Your task to perform on an android device: toggle translation in the chrome app Image 0: 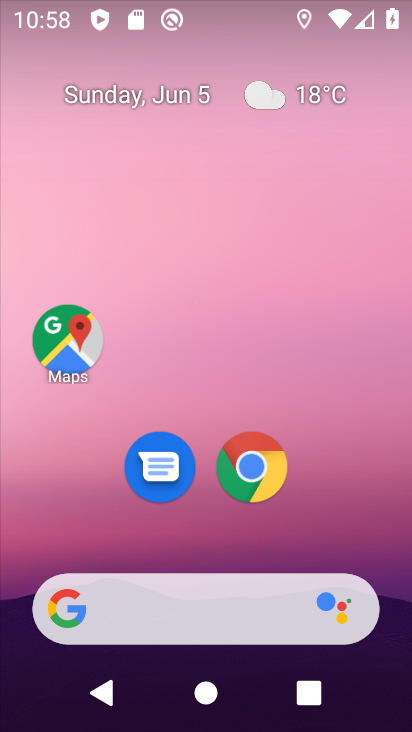
Step 0: click (234, 430)
Your task to perform on an android device: toggle translation in the chrome app Image 1: 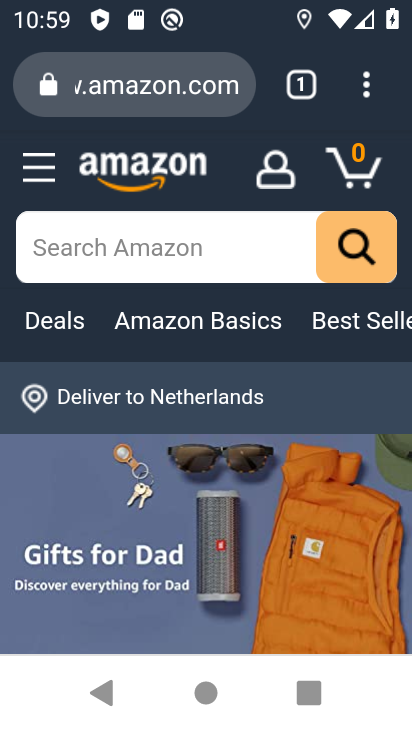
Step 1: click (352, 90)
Your task to perform on an android device: toggle translation in the chrome app Image 2: 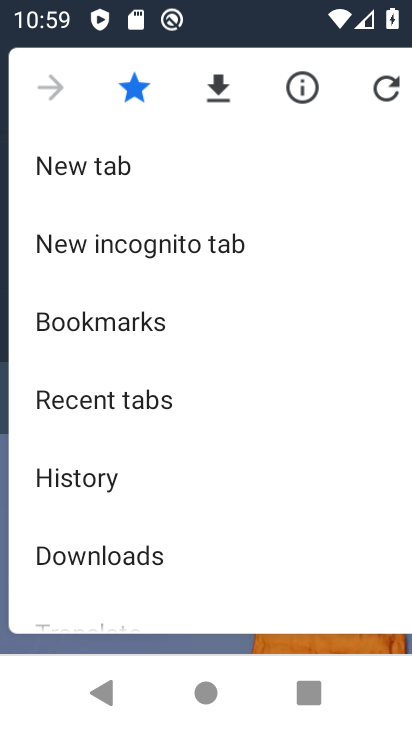
Step 2: drag from (165, 506) to (96, 79)
Your task to perform on an android device: toggle translation in the chrome app Image 3: 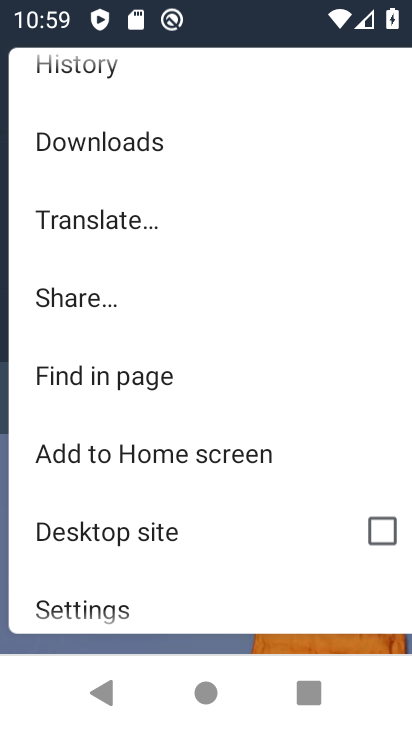
Step 3: click (69, 605)
Your task to perform on an android device: toggle translation in the chrome app Image 4: 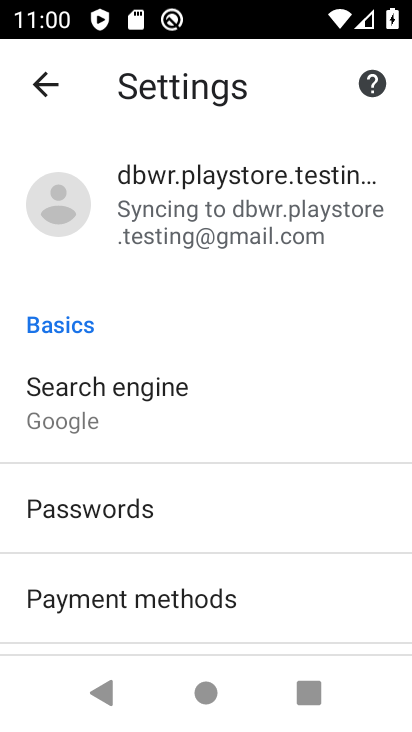
Step 4: drag from (174, 518) to (388, 318)
Your task to perform on an android device: toggle translation in the chrome app Image 5: 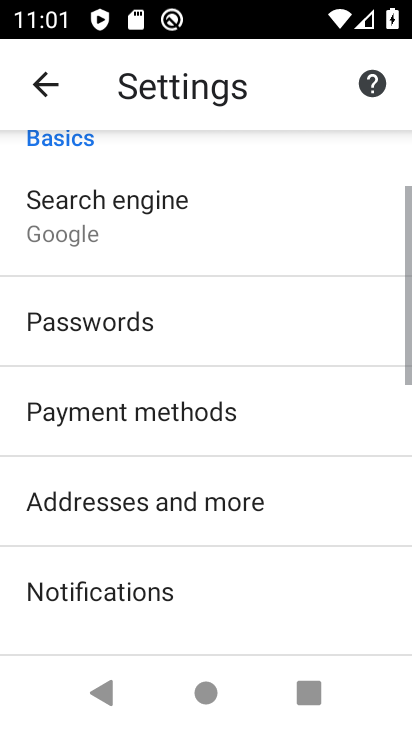
Step 5: drag from (270, 552) to (213, 44)
Your task to perform on an android device: toggle translation in the chrome app Image 6: 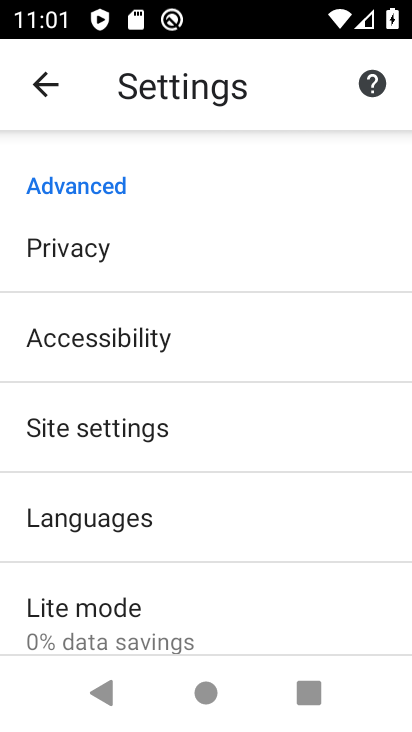
Step 6: click (77, 503)
Your task to perform on an android device: toggle translation in the chrome app Image 7: 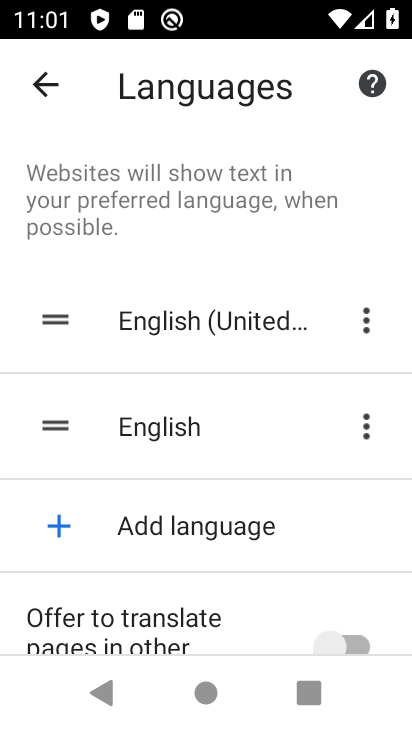
Step 7: click (330, 618)
Your task to perform on an android device: toggle translation in the chrome app Image 8: 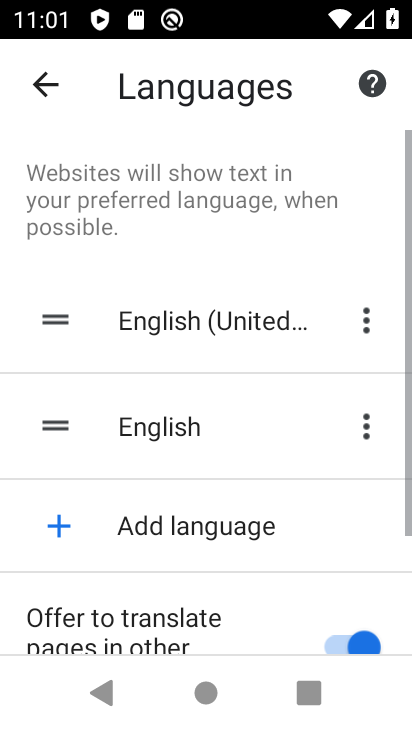
Step 8: task complete